Your task to perform on an android device: turn off priority inbox in the gmail app Image 0: 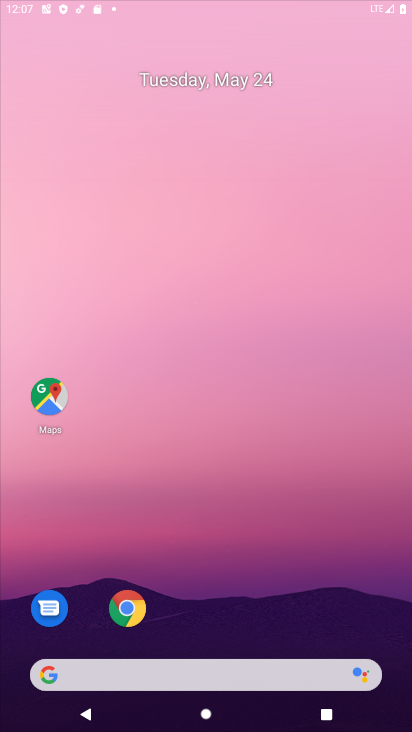
Step 0: press home button
Your task to perform on an android device: turn off priority inbox in the gmail app Image 1: 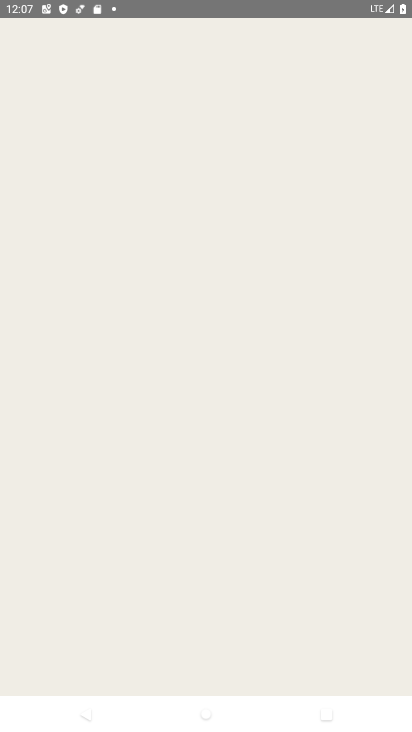
Step 1: drag from (218, 629) to (214, 144)
Your task to perform on an android device: turn off priority inbox in the gmail app Image 2: 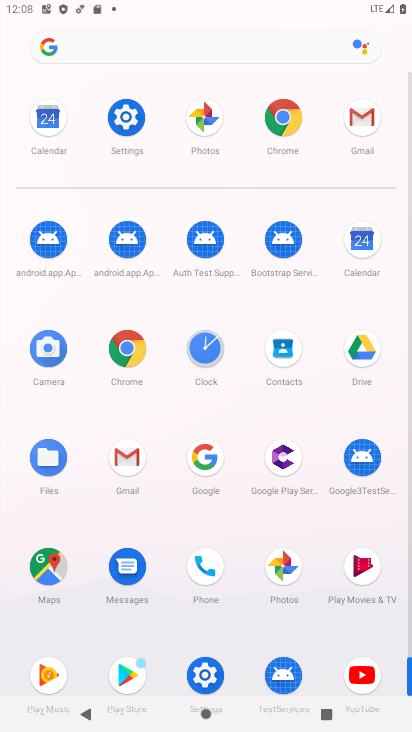
Step 2: click (125, 451)
Your task to perform on an android device: turn off priority inbox in the gmail app Image 3: 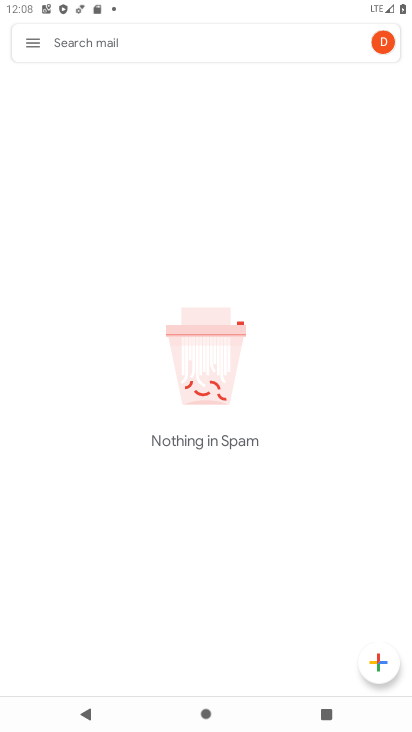
Step 3: click (30, 27)
Your task to perform on an android device: turn off priority inbox in the gmail app Image 4: 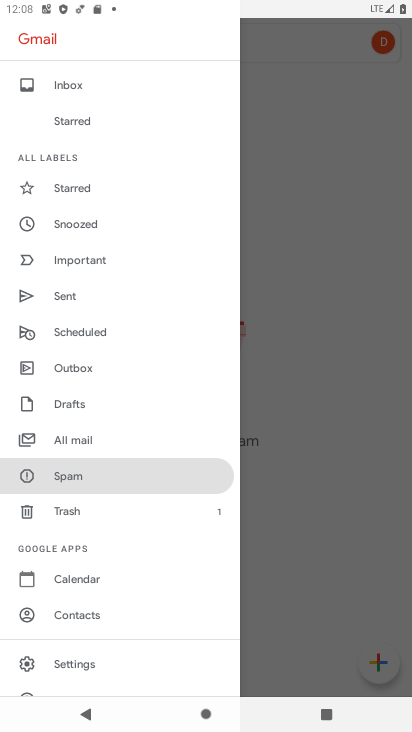
Step 4: drag from (80, 605) to (92, 88)
Your task to perform on an android device: turn off priority inbox in the gmail app Image 5: 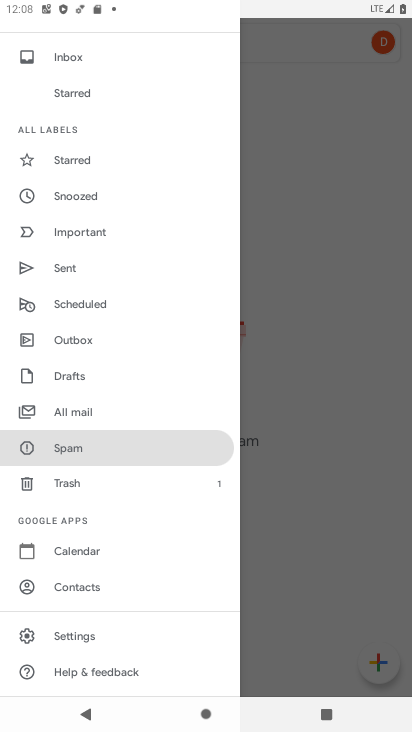
Step 5: click (107, 630)
Your task to perform on an android device: turn off priority inbox in the gmail app Image 6: 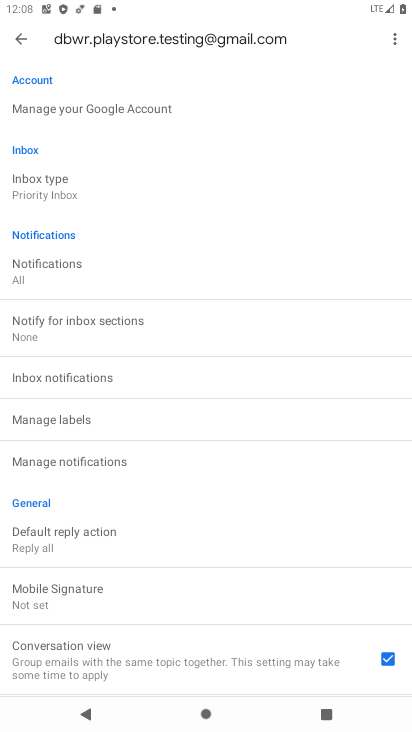
Step 6: click (92, 180)
Your task to perform on an android device: turn off priority inbox in the gmail app Image 7: 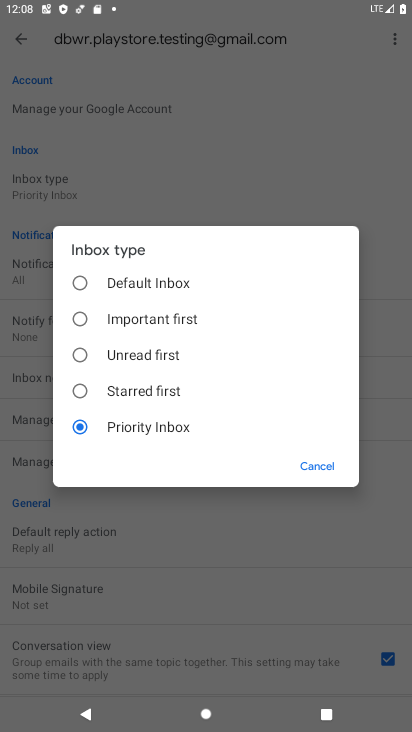
Step 7: click (79, 385)
Your task to perform on an android device: turn off priority inbox in the gmail app Image 8: 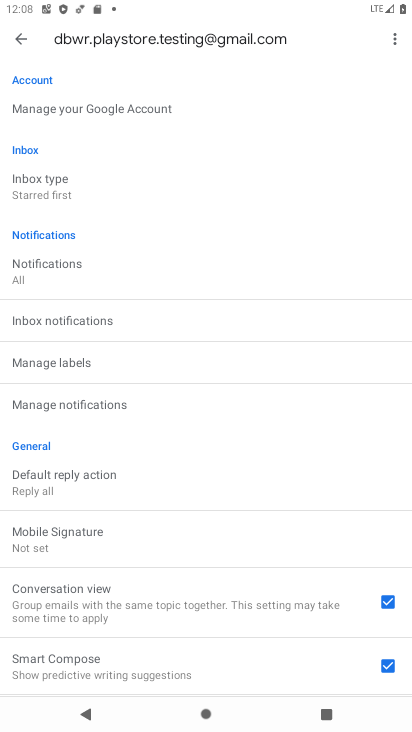
Step 8: task complete